Your task to perform on an android device: open a new tab in the chrome app Image 0: 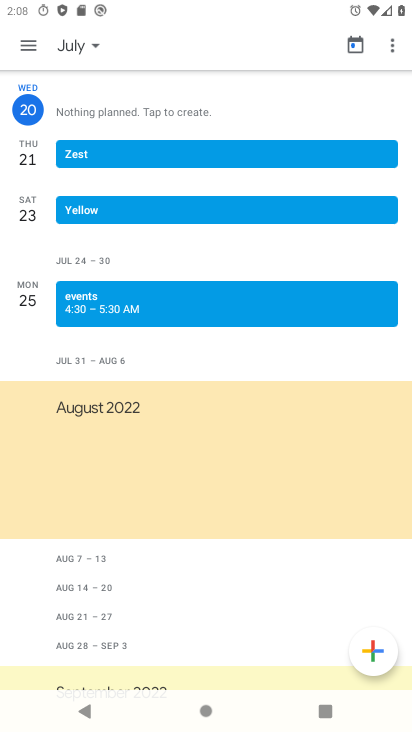
Step 0: press home button
Your task to perform on an android device: open a new tab in the chrome app Image 1: 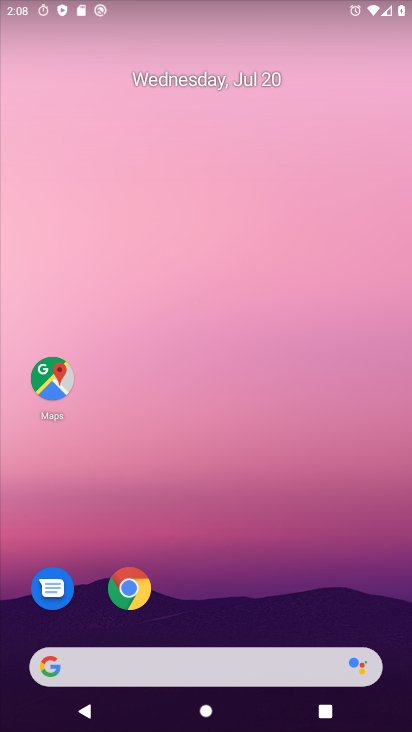
Step 1: drag from (287, 683) to (286, 155)
Your task to perform on an android device: open a new tab in the chrome app Image 2: 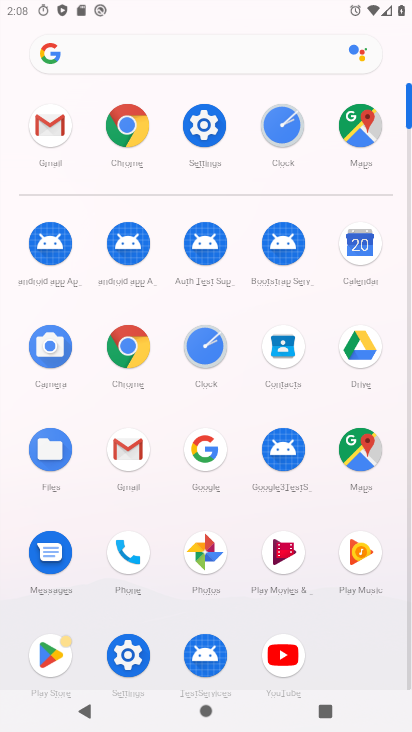
Step 2: click (134, 339)
Your task to perform on an android device: open a new tab in the chrome app Image 3: 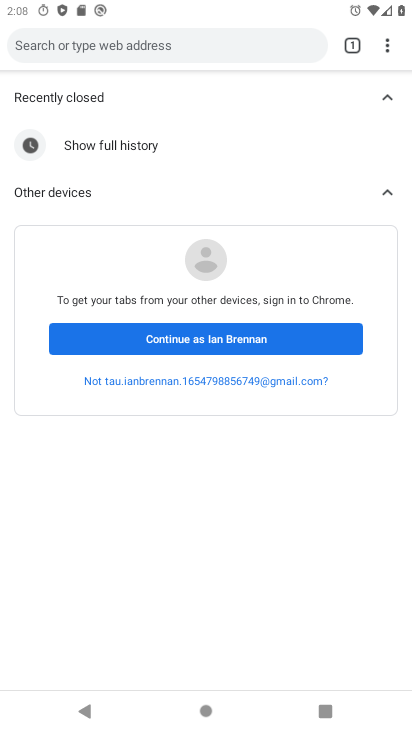
Step 3: task complete